Your task to perform on an android device: set the stopwatch Image 0: 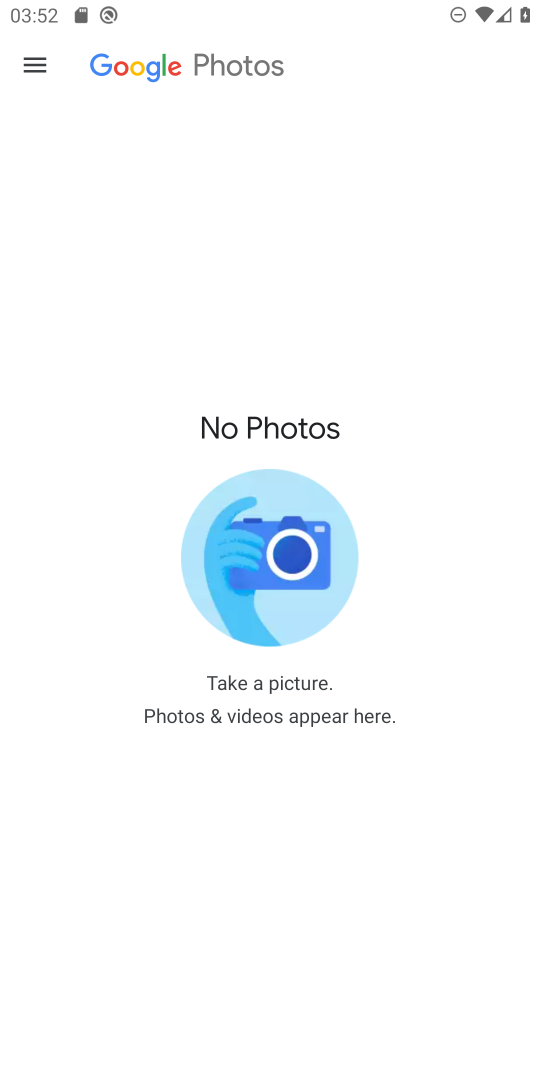
Step 0: press home button
Your task to perform on an android device: set the stopwatch Image 1: 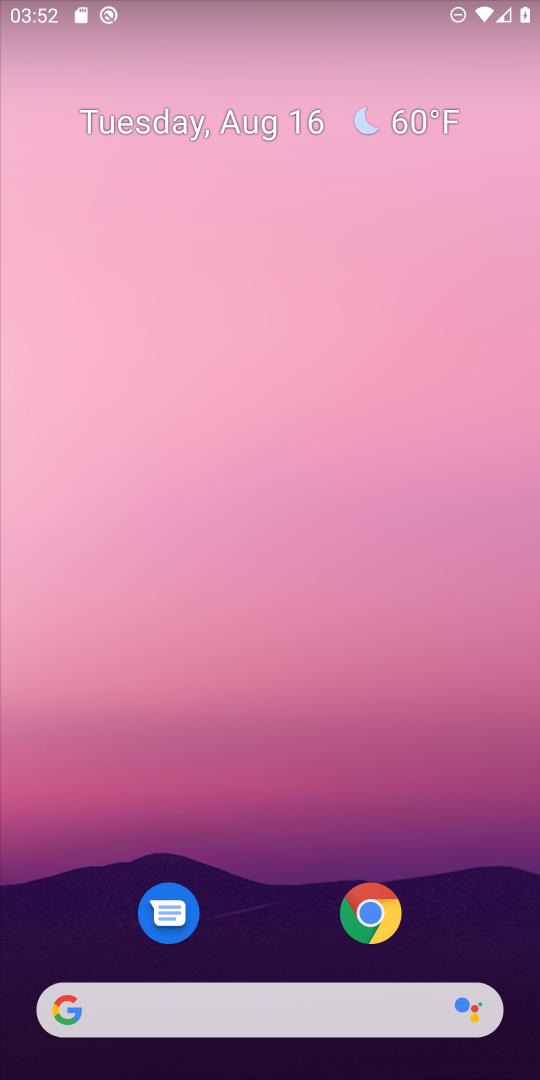
Step 1: drag from (515, 947) to (481, 223)
Your task to perform on an android device: set the stopwatch Image 2: 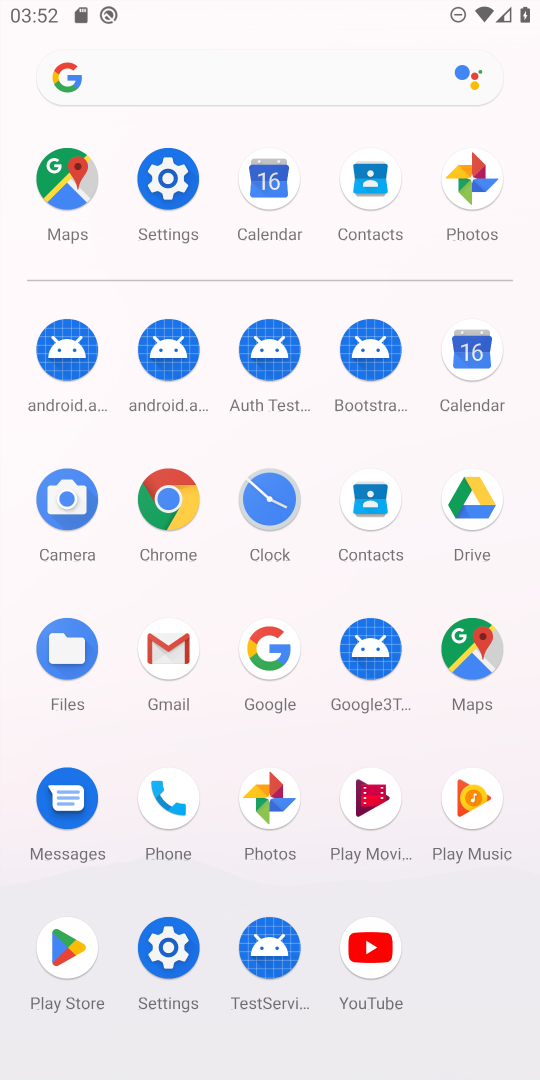
Step 2: click (270, 500)
Your task to perform on an android device: set the stopwatch Image 3: 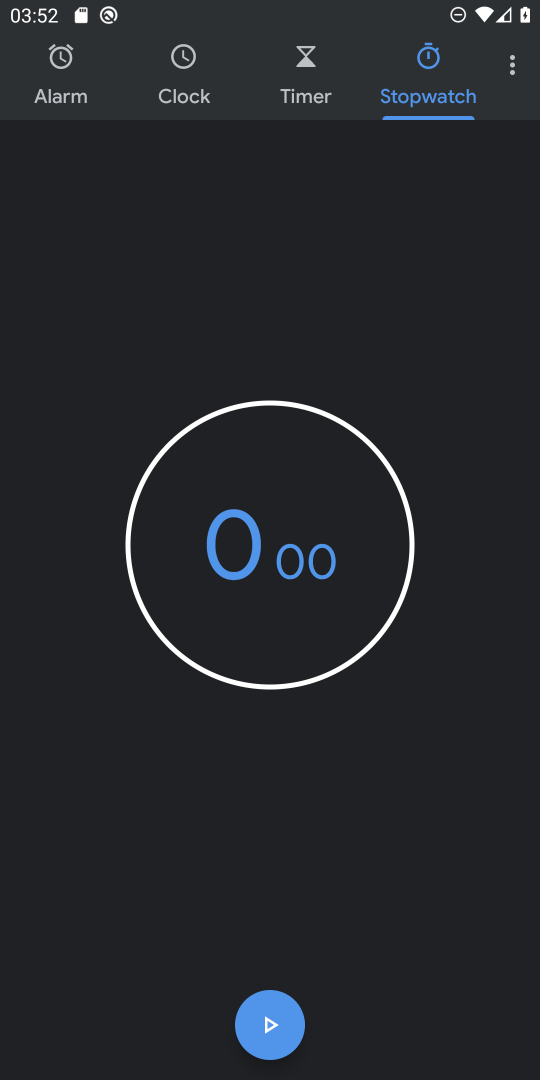
Step 3: task complete